Your task to perform on an android device: turn on bluetooth scan Image 0: 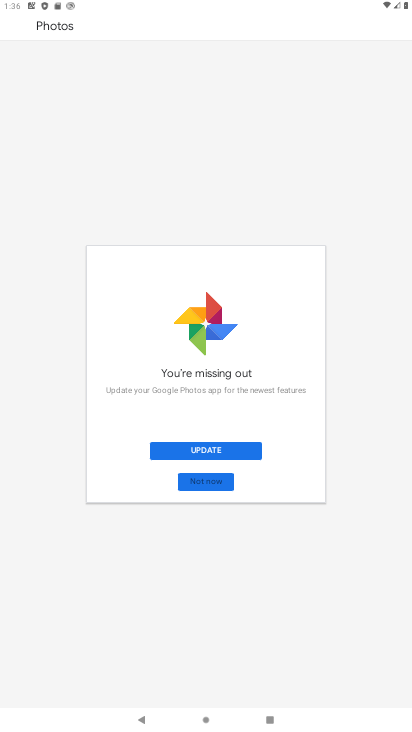
Step 0: press home button
Your task to perform on an android device: turn on bluetooth scan Image 1: 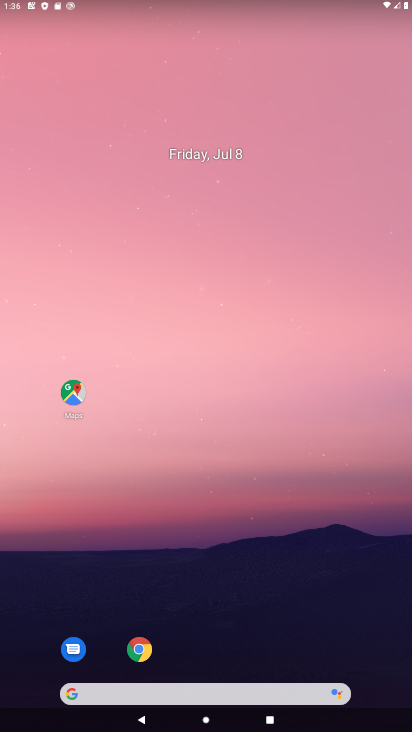
Step 1: drag from (132, 657) to (116, 127)
Your task to perform on an android device: turn on bluetooth scan Image 2: 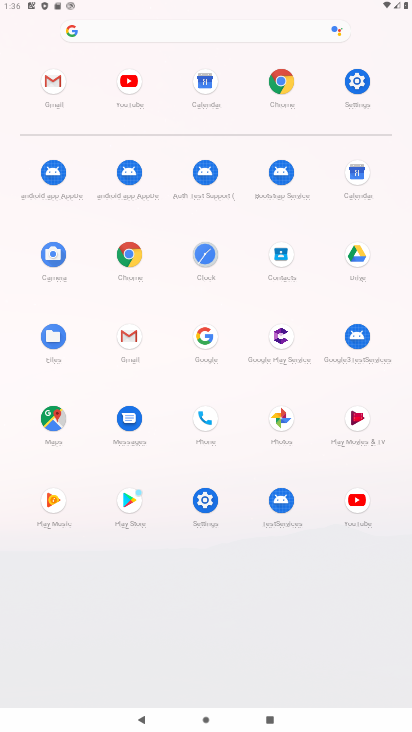
Step 2: click (194, 509)
Your task to perform on an android device: turn on bluetooth scan Image 3: 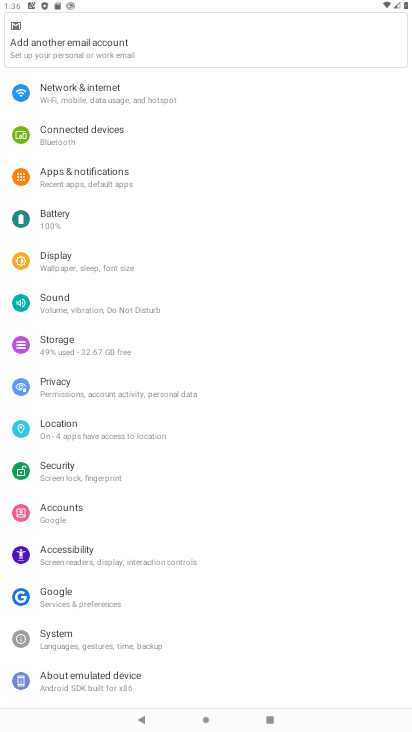
Step 3: click (74, 139)
Your task to perform on an android device: turn on bluetooth scan Image 4: 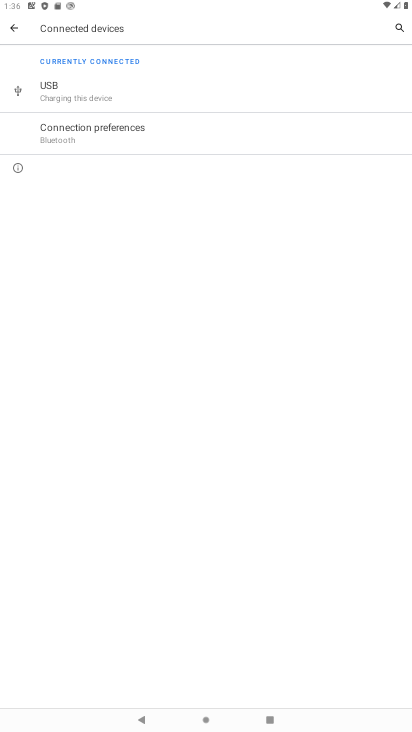
Step 4: click (118, 127)
Your task to perform on an android device: turn on bluetooth scan Image 5: 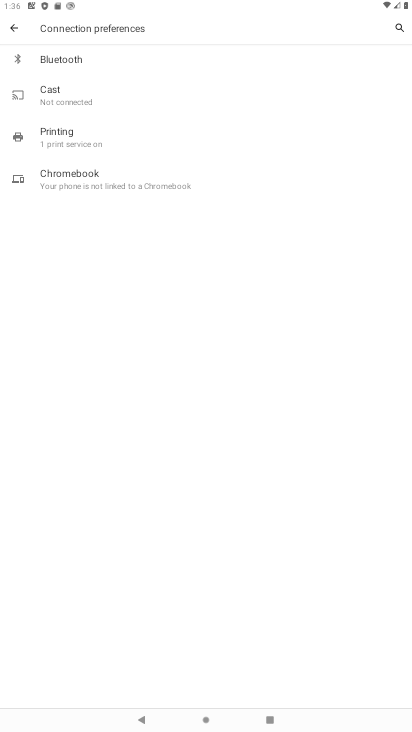
Step 5: click (86, 51)
Your task to perform on an android device: turn on bluetooth scan Image 6: 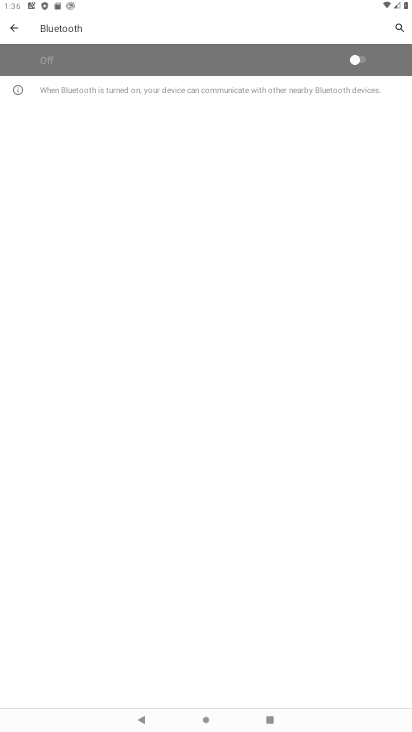
Step 6: click (360, 49)
Your task to perform on an android device: turn on bluetooth scan Image 7: 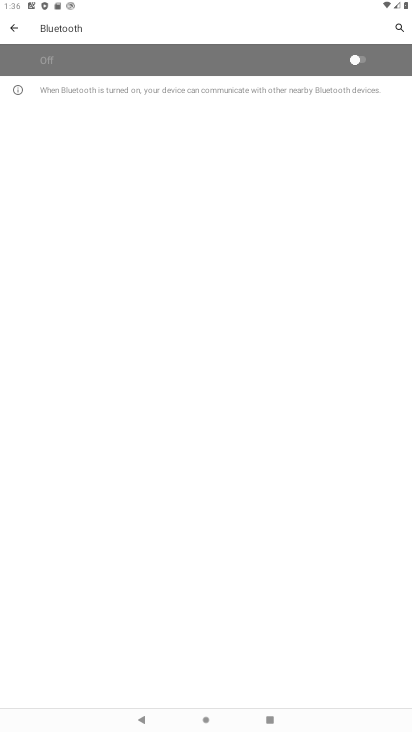
Step 7: click (348, 60)
Your task to perform on an android device: turn on bluetooth scan Image 8: 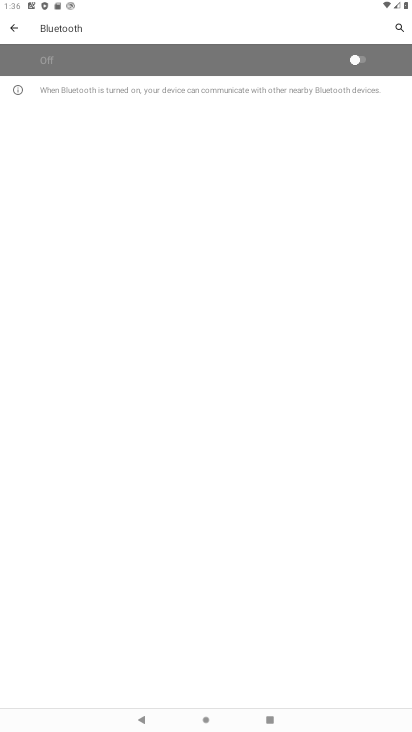
Step 8: click (354, 58)
Your task to perform on an android device: turn on bluetooth scan Image 9: 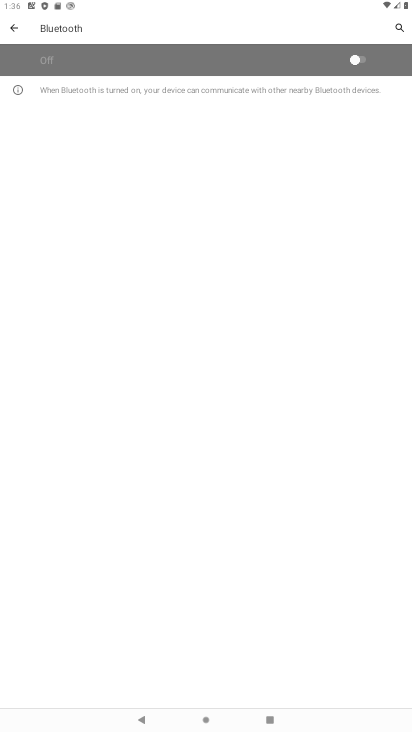
Step 9: click (353, 60)
Your task to perform on an android device: turn on bluetooth scan Image 10: 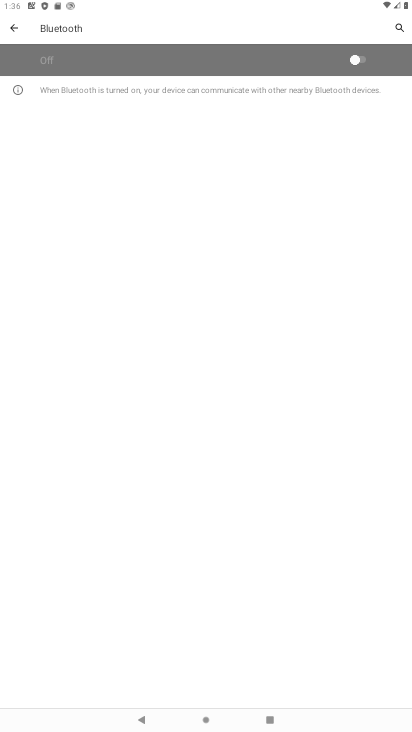
Step 10: click (361, 58)
Your task to perform on an android device: turn on bluetooth scan Image 11: 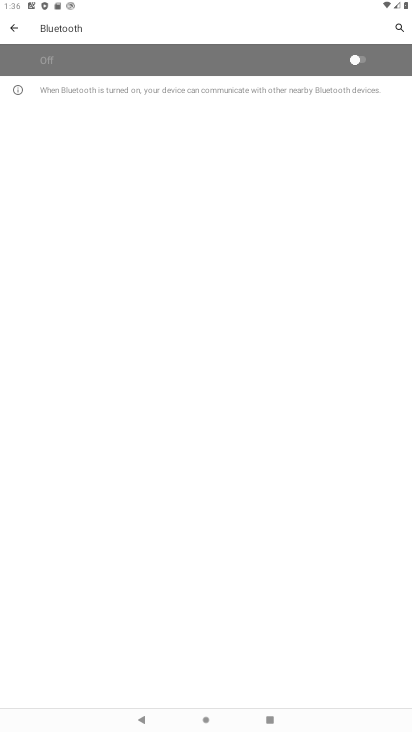
Step 11: click (361, 58)
Your task to perform on an android device: turn on bluetooth scan Image 12: 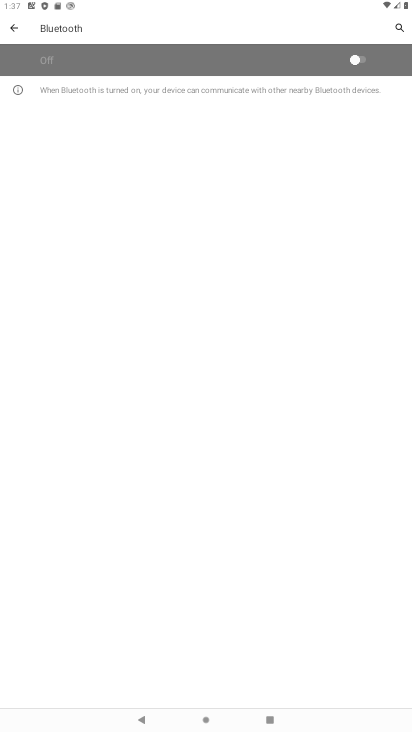
Step 12: task complete